Your task to perform on an android device: Go to location settings Image 0: 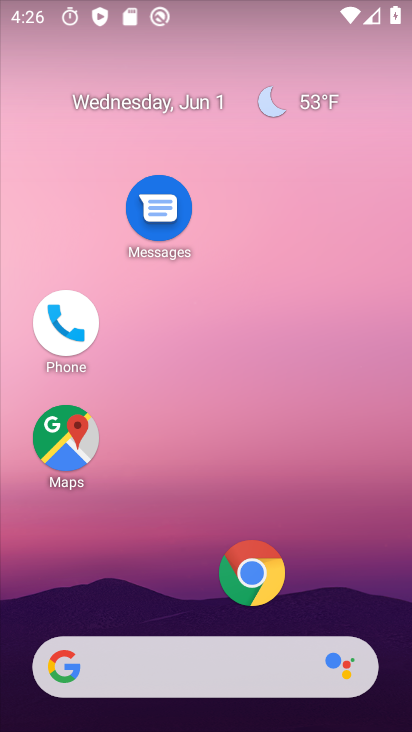
Step 0: drag from (155, 500) to (201, 21)
Your task to perform on an android device: Go to location settings Image 1: 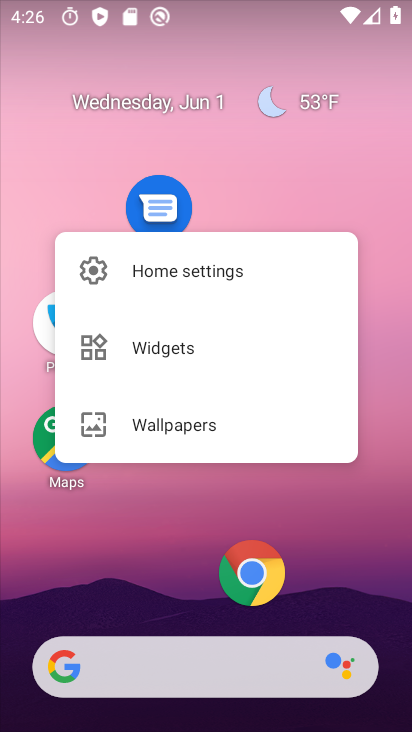
Step 1: drag from (116, 609) to (183, 233)
Your task to perform on an android device: Go to location settings Image 2: 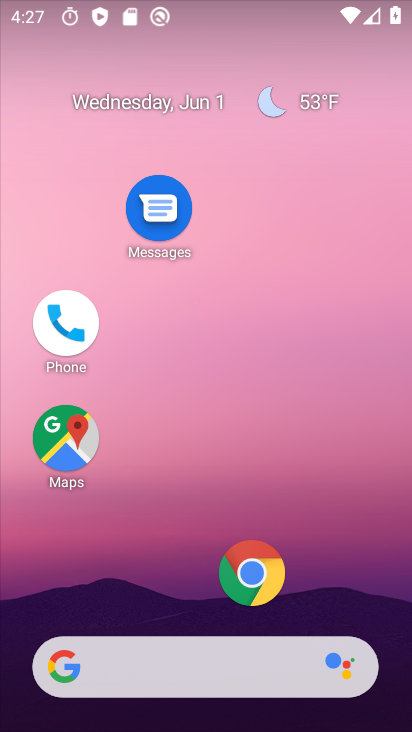
Step 2: press home button
Your task to perform on an android device: Go to location settings Image 3: 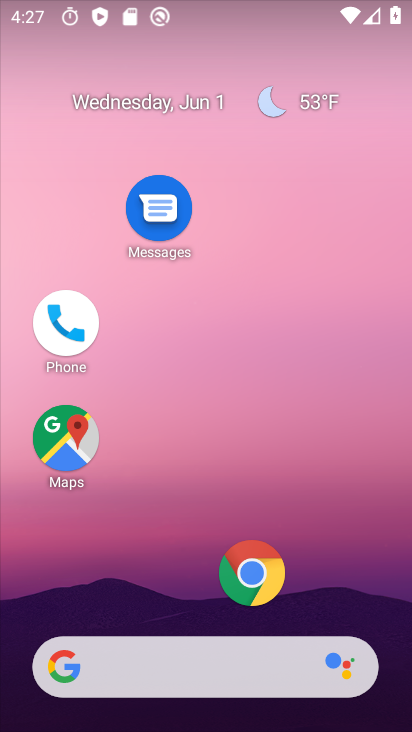
Step 3: drag from (79, 594) to (229, 156)
Your task to perform on an android device: Go to location settings Image 4: 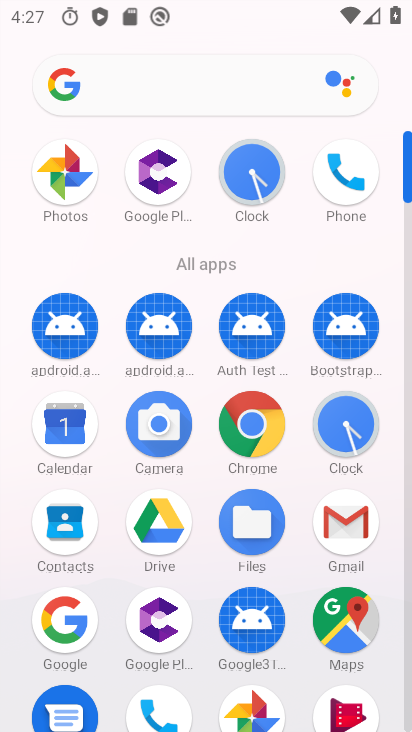
Step 4: drag from (152, 622) to (255, 118)
Your task to perform on an android device: Go to location settings Image 5: 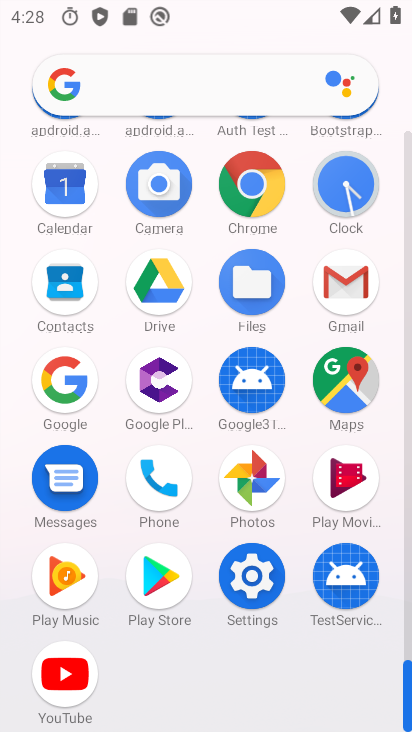
Step 5: click (259, 284)
Your task to perform on an android device: Go to location settings Image 6: 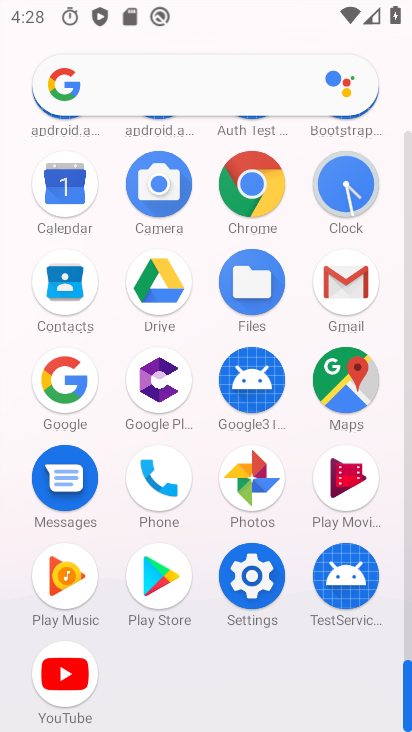
Step 6: click (267, 587)
Your task to perform on an android device: Go to location settings Image 7: 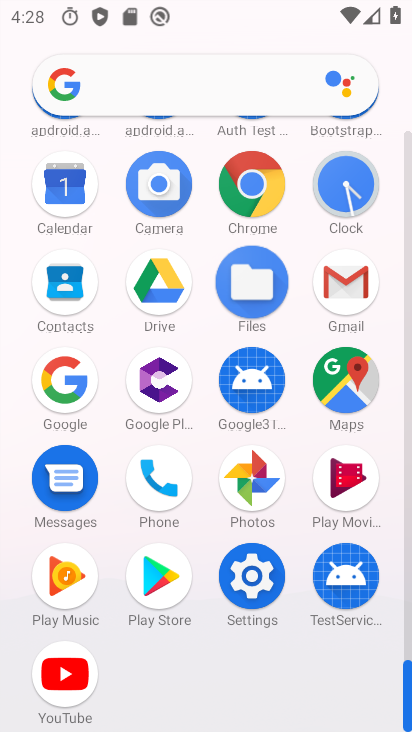
Step 7: click (252, 570)
Your task to perform on an android device: Go to location settings Image 8: 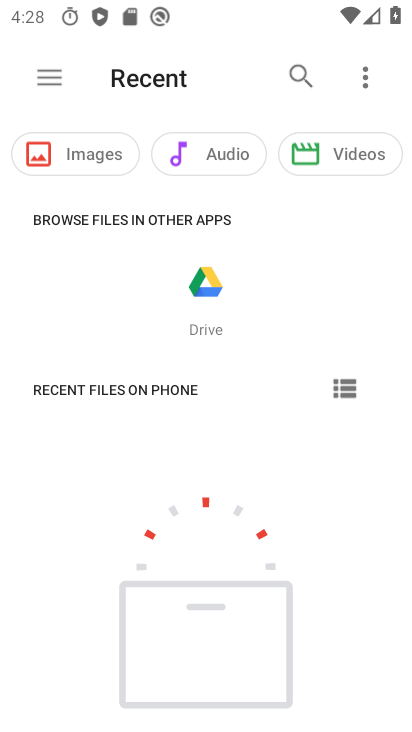
Step 8: press home button
Your task to perform on an android device: Go to location settings Image 9: 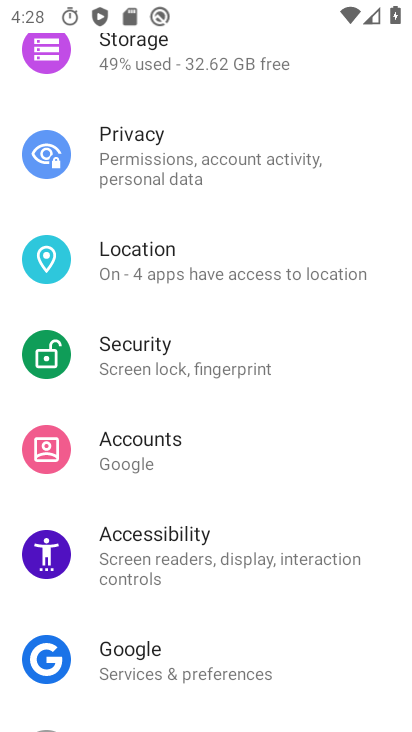
Step 9: click (192, 278)
Your task to perform on an android device: Go to location settings Image 10: 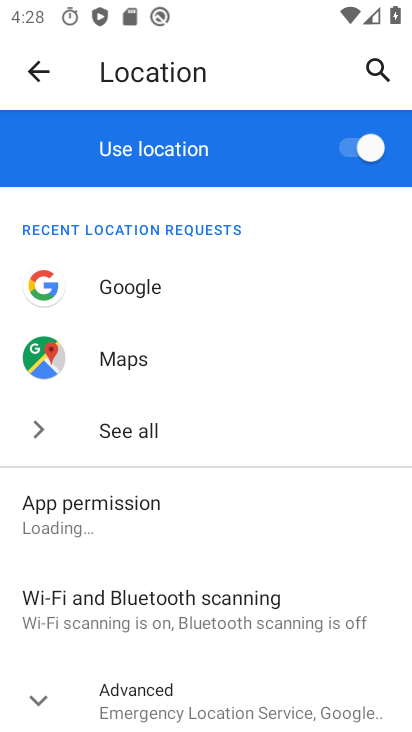
Step 10: task complete